Your task to perform on an android device: Play the last video I watched on Youtube Image 0: 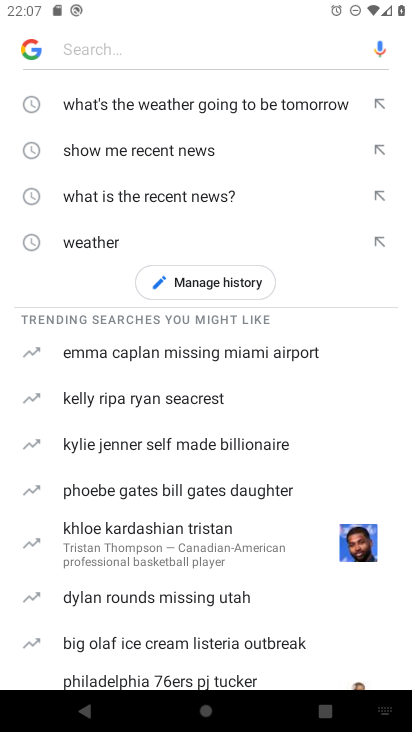
Step 0: press home button
Your task to perform on an android device: Play the last video I watched on Youtube Image 1: 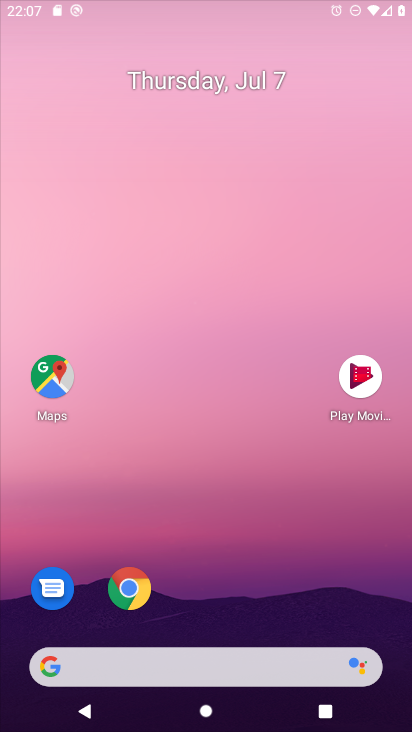
Step 1: drag from (212, 629) to (203, 212)
Your task to perform on an android device: Play the last video I watched on Youtube Image 2: 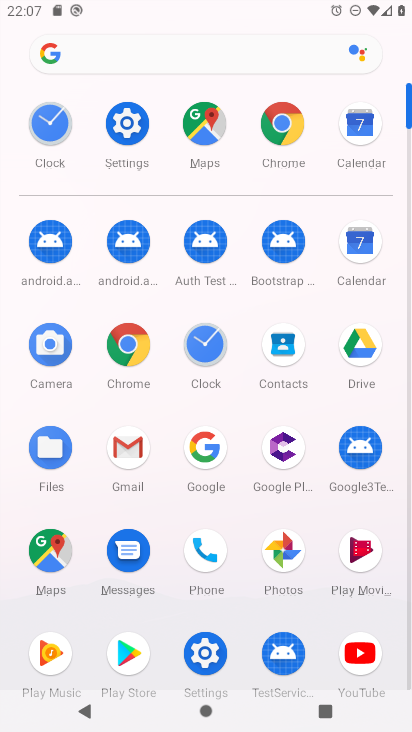
Step 2: click (356, 651)
Your task to perform on an android device: Play the last video I watched on Youtube Image 3: 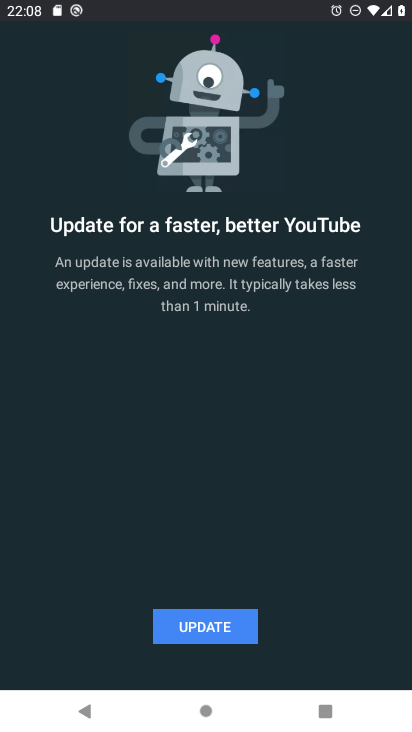
Step 3: task complete